Your task to perform on an android device: Open Youtube and go to the subscriptions tab Image 0: 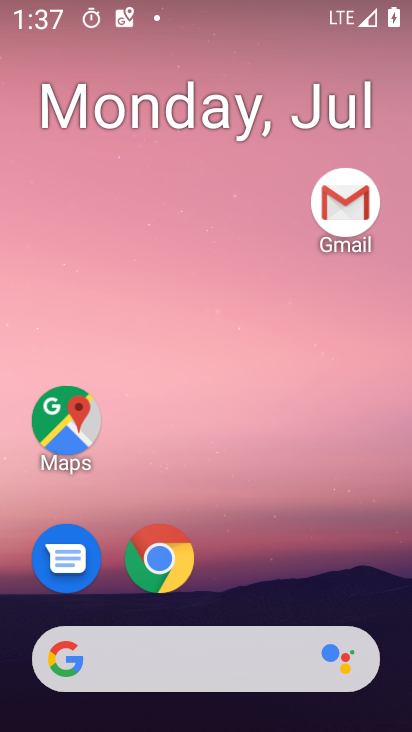
Step 0: drag from (354, 576) to (402, 159)
Your task to perform on an android device: Open Youtube and go to the subscriptions tab Image 1: 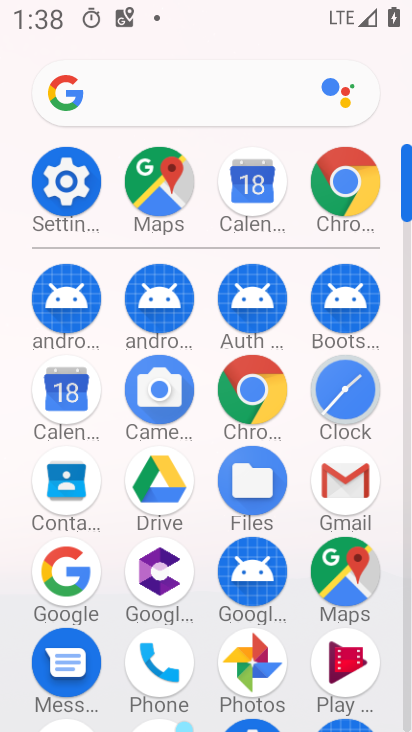
Step 1: drag from (388, 643) to (388, 496)
Your task to perform on an android device: Open Youtube and go to the subscriptions tab Image 2: 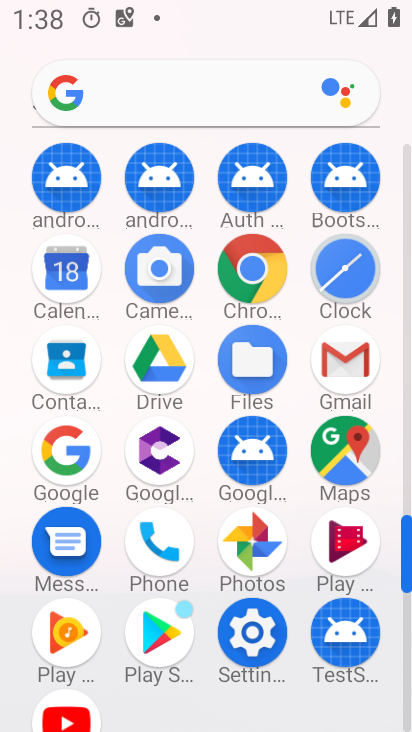
Step 2: drag from (394, 625) to (396, 443)
Your task to perform on an android device: Open Youtube and go to the subscriptions tab Image 3: 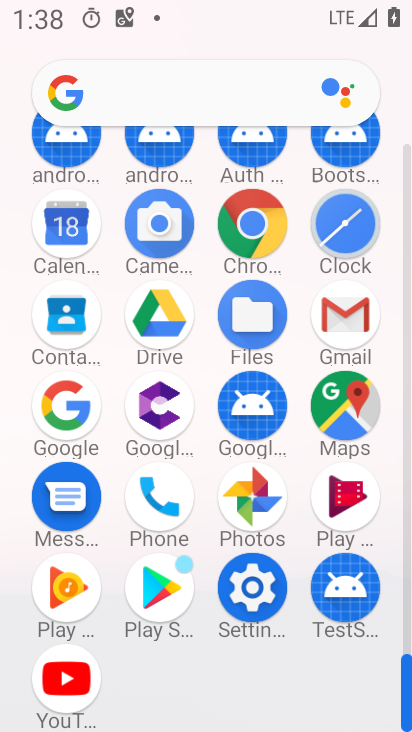
Step 3: click (67, 678)
Your task to perform on an android device: Open Youtube and go to the subscriptions tab Image 4: 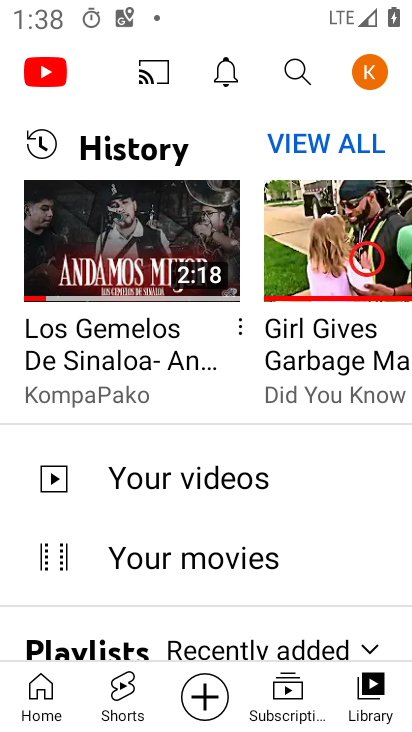
Step 4: click (287, 698)
Your task to perform on an android device: Open Youtube and go to the subscriptions tab Image 5: 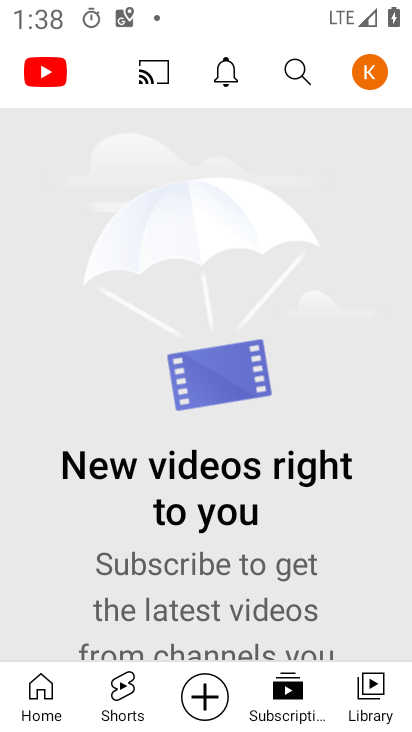
Step 5: task complete